Your task to perform on an android device: Go to internet settings Image 0: 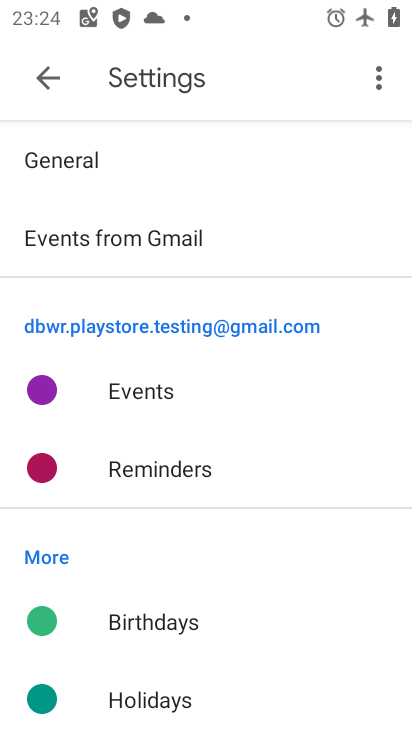
Step 0: press home button
Your task to perform on an android device: Go to internet settings Image 1: 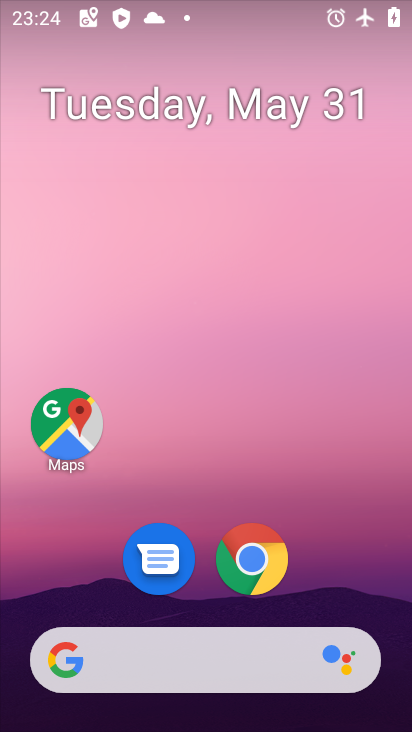
Step 1: drag from (317, 595) to (330, 106)
Your task to perform on an android device: Go to internet settings Image 2: 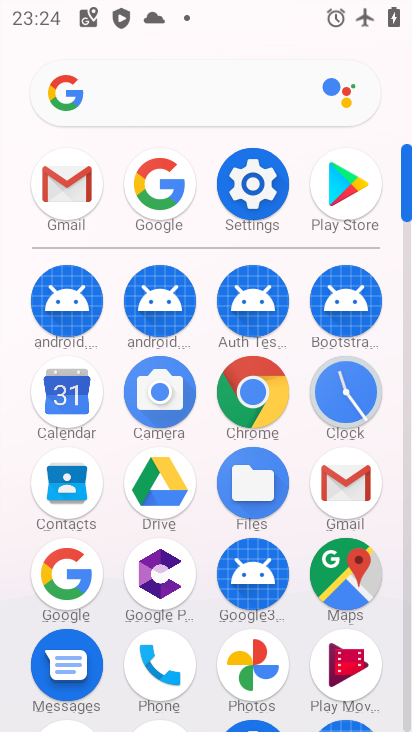
Step 2: click (251, 186)
Your task to perform on an android device: Go to internet settings Image 3: 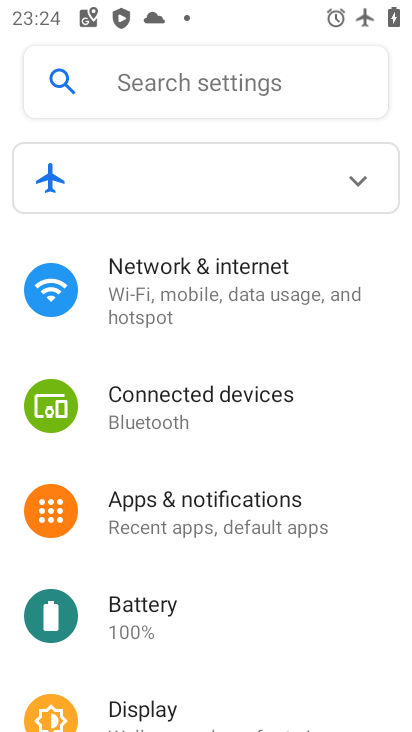
Step 3: click (174, 295)
Your task to perform on an android device: Go to internet settings Image 4: 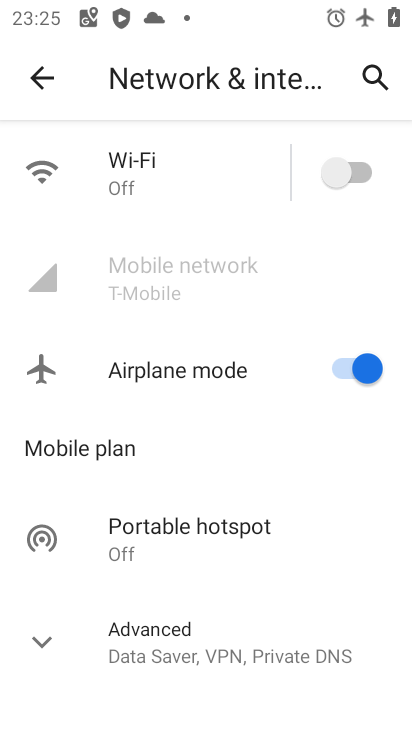
Step 4: click (168, 177)
Your task to perform on an android device: Go to internet settings Image 5: 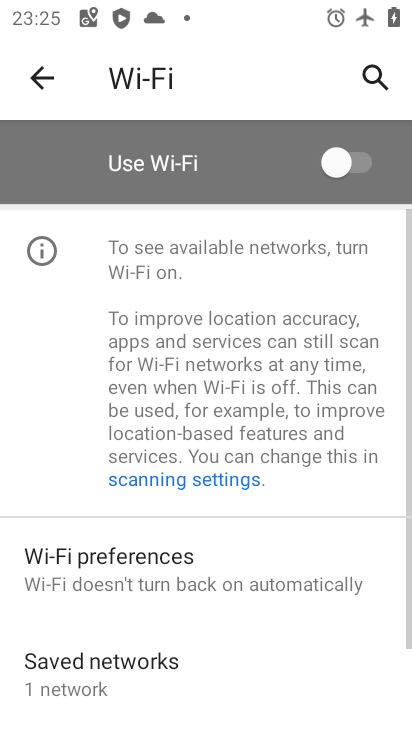
Step 5: click (345, 157)
Your task to perform on an android device: Go to internet settings Image 6: 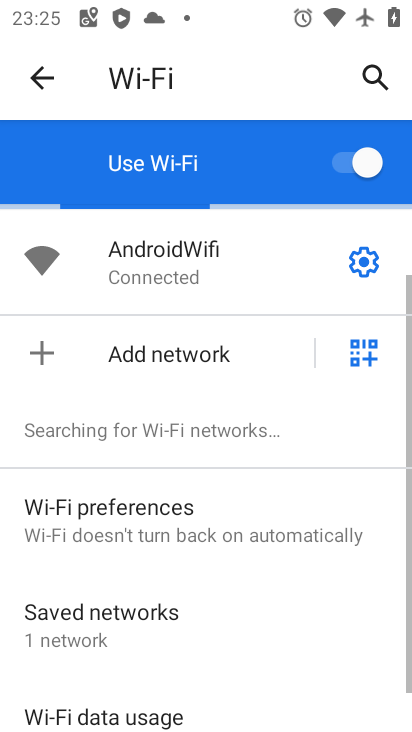
Step 6: click (178, 269)
Your task to perform on an android device: Go to internet settings Image 7: 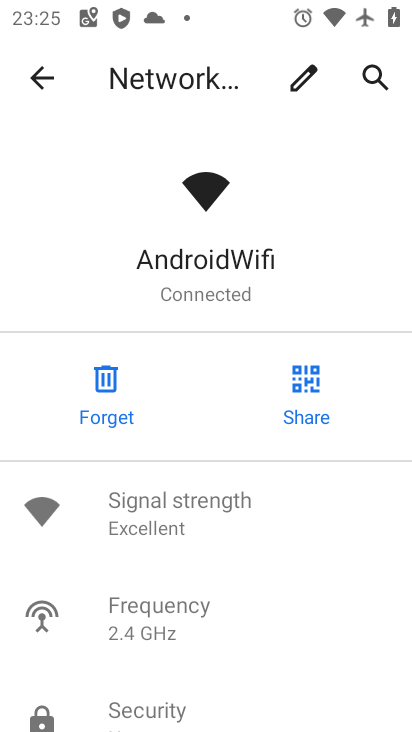
Step 7: task complete